Your task to perform on an android device: Open Chrome and go to settings Image 0: 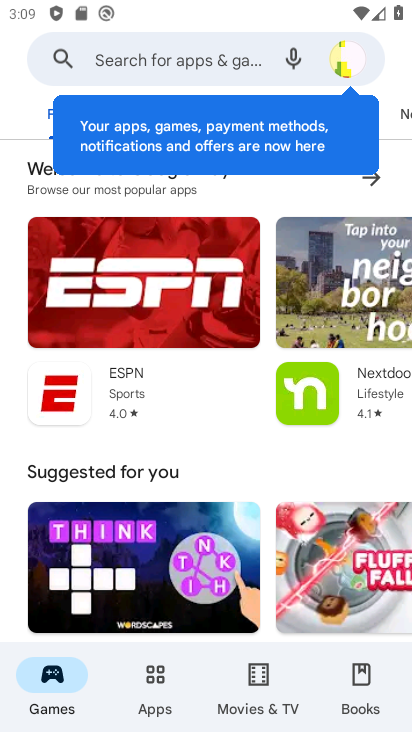
Step 0: press home button
Your task to perform on an android device: Open Chrome and go to settings Image 1: 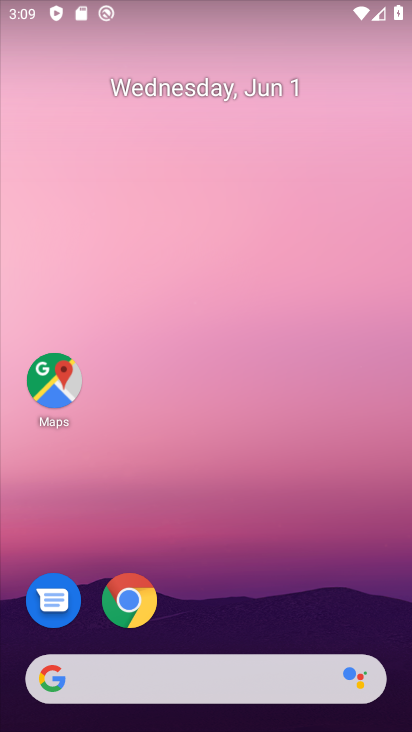
Step 1: click (131, 597)
Your task to perform on an android device: Open Chrome and go to settings Image 2: 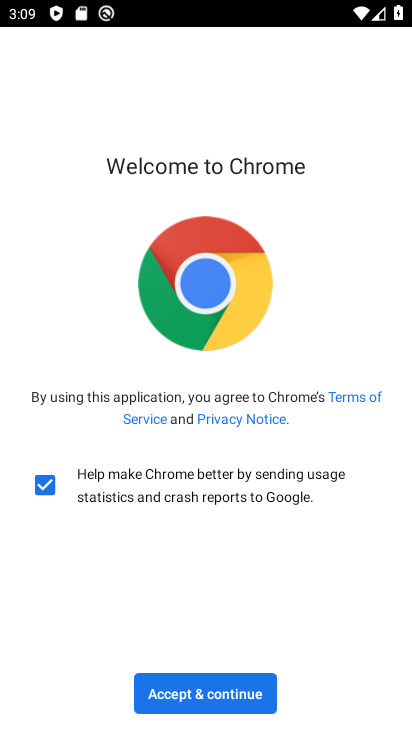
Step 2: click (208, 691)
Your task to perform on an android device: Open Chrome and go to settings Image 3: 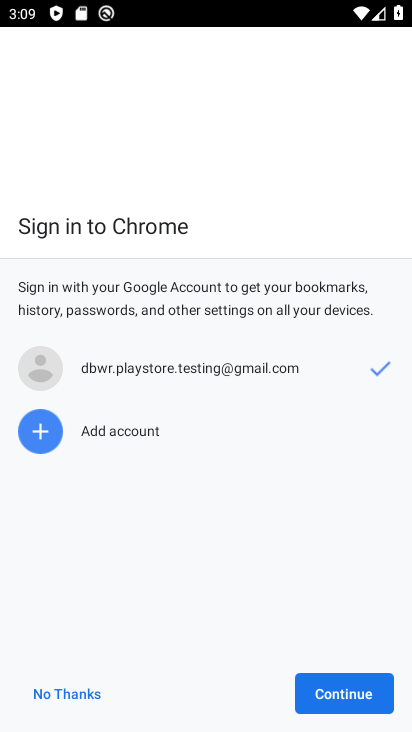
Step 3: click (322, 689)
Your task to perform on an android device: Open Chrome and go to settings Image 4: 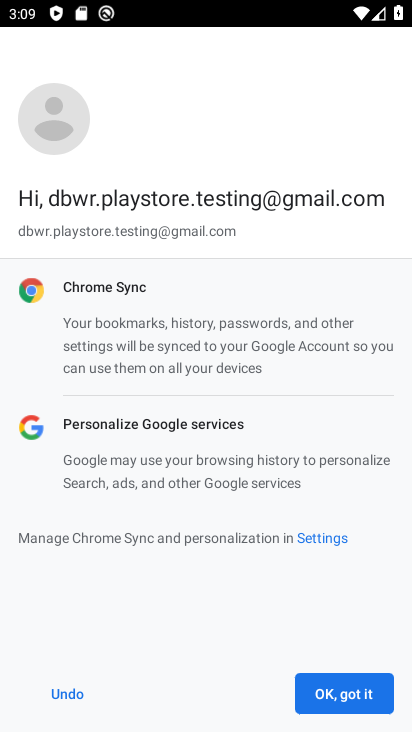
Step 4: click (322, 689)
Your task to perform on an android device: Open Chrome and go to settings Image 5: 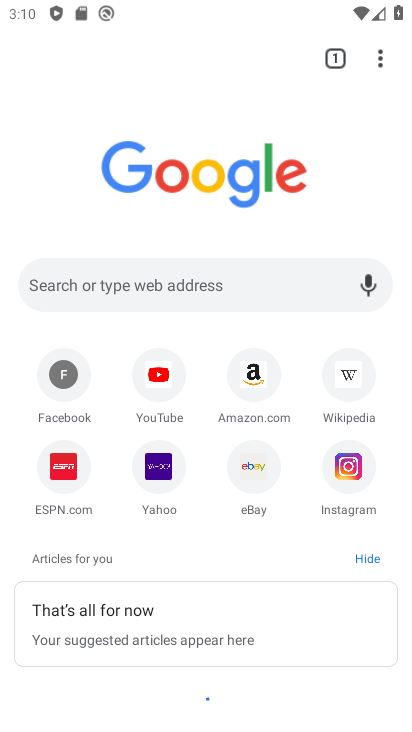
Step 5: click (380, 61)
Your task to perform on an android device: Open Chrome and go to settings Image 6: 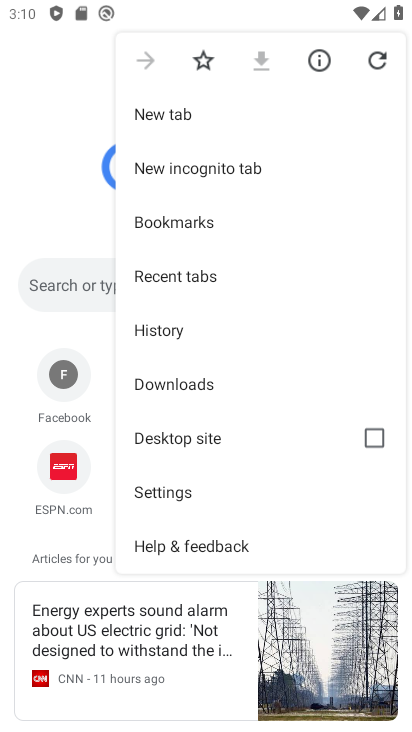
Step 6: click (175, 491)
Your task to perform on an android device: Open Chrome and go to settings Image 7: 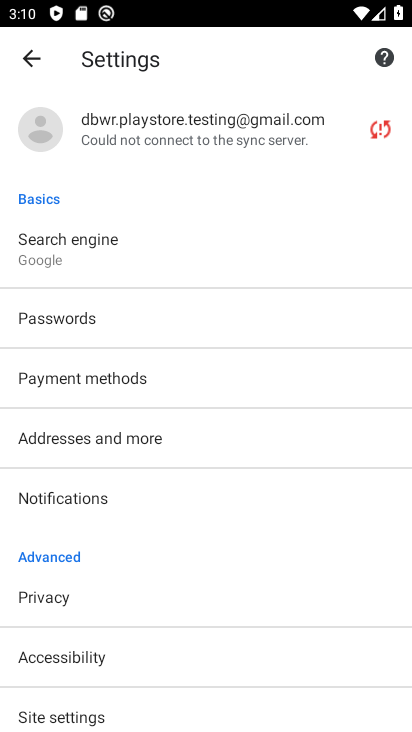
Step 7: task complete